Your task to perform on an android device: all mails in gmail Image 0: 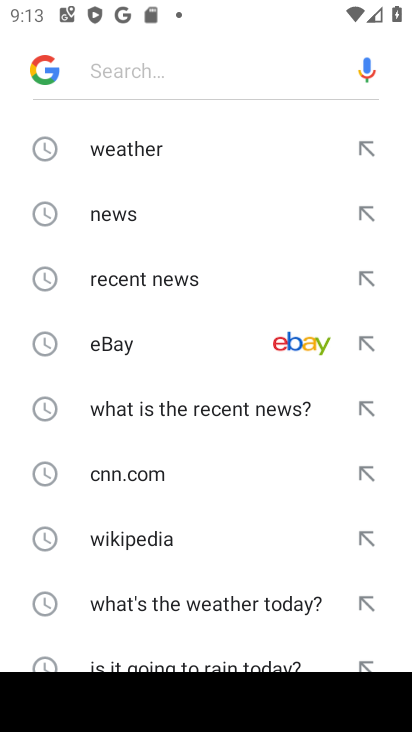
Step 0: press home button
Your task to perform on an android device: all mails in gmail Image 1: 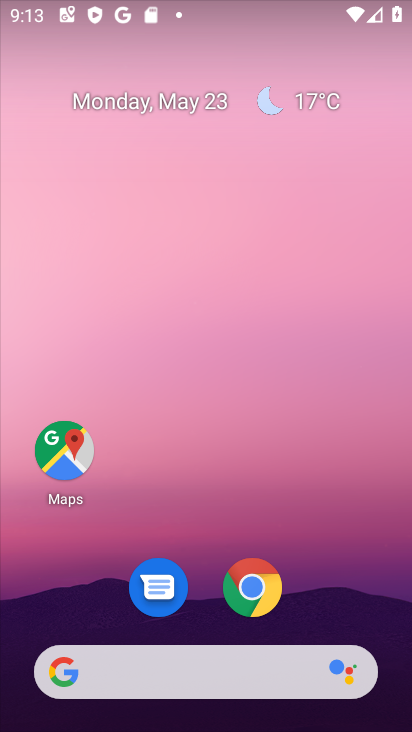
Step 1: drag from (231, 519) to (304, 24)
Your task to perform on an android device: all mails in gmail Image 2: 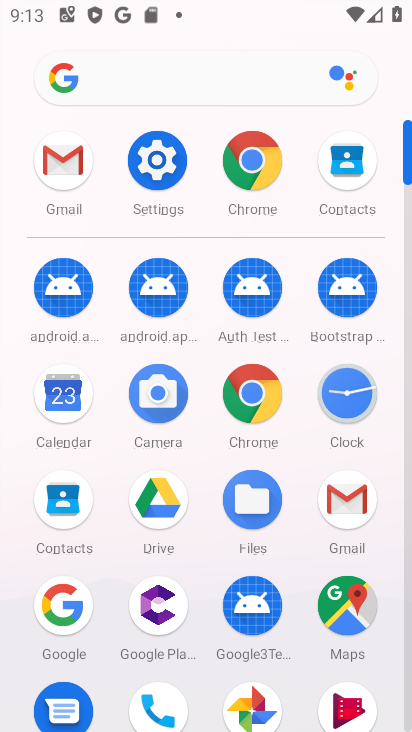
Step 2: click (56, 167)
Your task to perform on an android device: all mails in gmail Image 3: 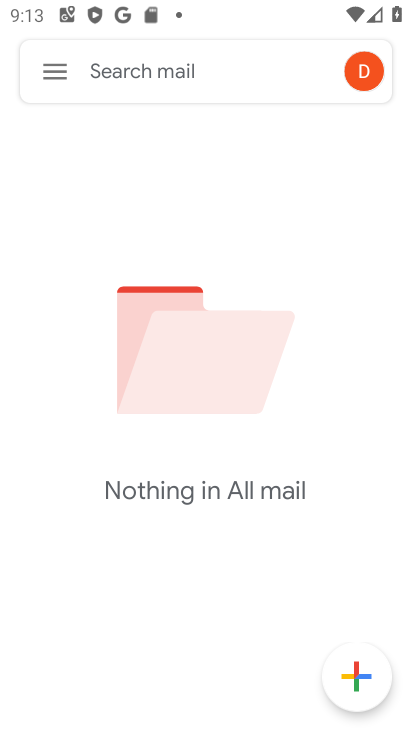
Step 3: task complete